Your task to perform on an android device: Turn off the flashlight Image 0: 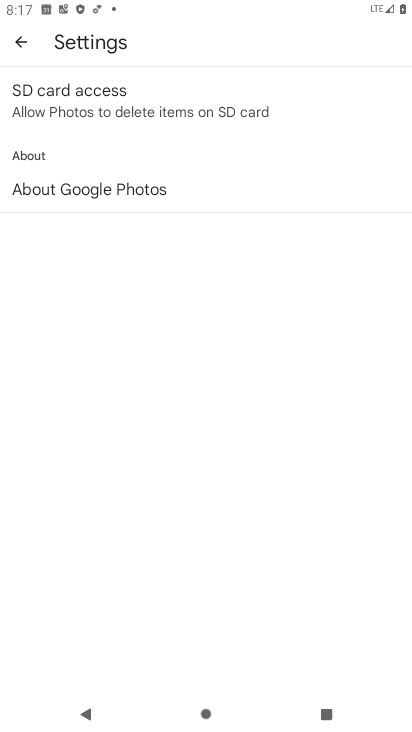
Step 0: press home button
Your task to perform on an android device: Turn off the flashlight Image 1: 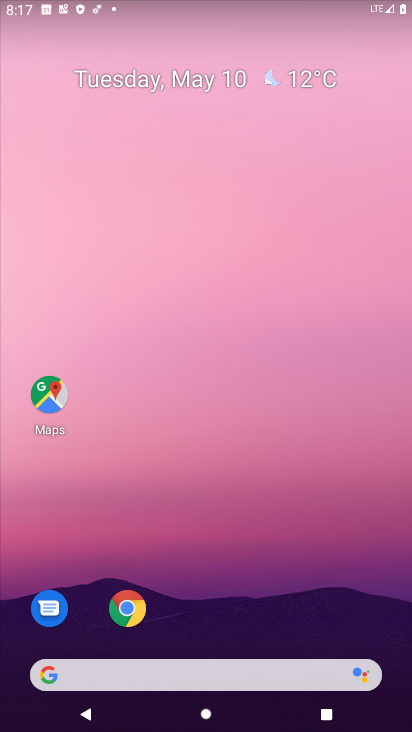
Step 1: task complete